Your task to perform on an android device: Go to wifi settings Image 0: 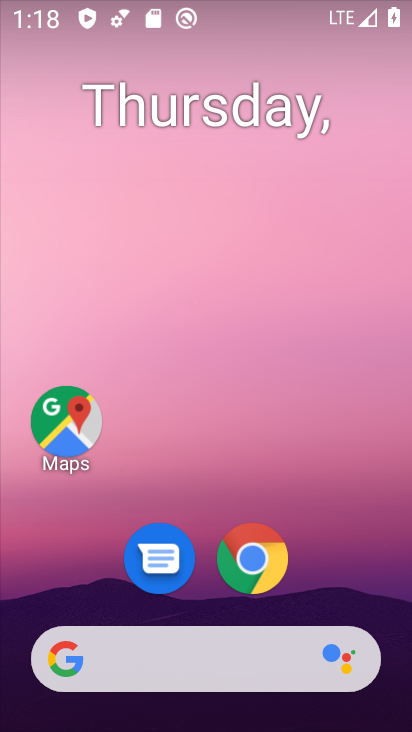
Step 0: drag from (340, 543) to (303, 0)
Your task to perform on an android device: Go to wifi settings Image 1: 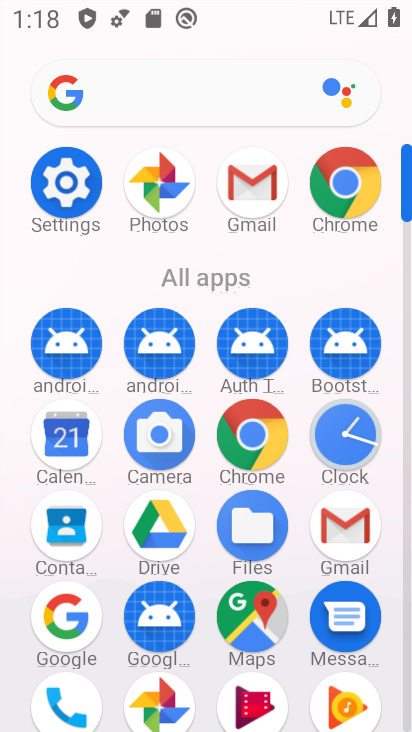
Step 1: drag from (316, 12) to (208, 524)
Your task to perform on an android device: Go to wifi settings Image 2: 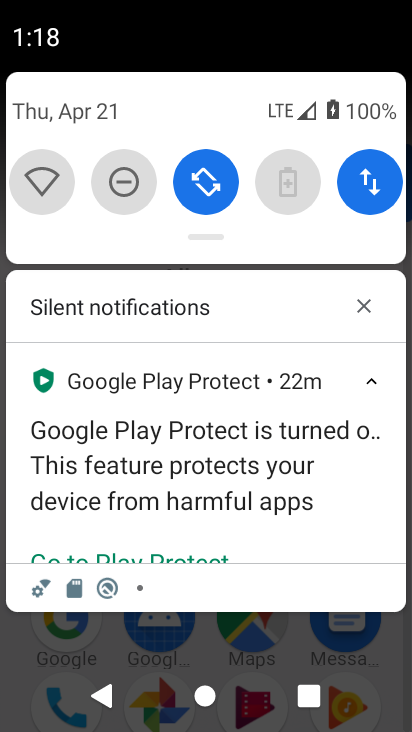
Step 2: drag from (195, 238) to (142, 601)
Your task to perform on an android device: Go to wifi settings Image 3: 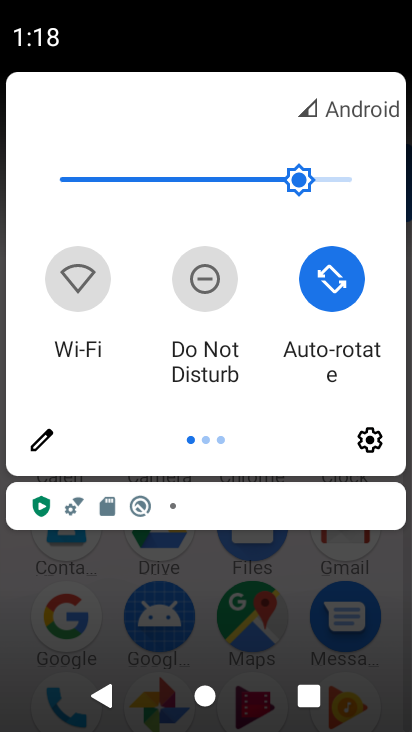
Step 3: click (80, 274)
Your task to perform on an android device: Go to wifi settings Image 4: 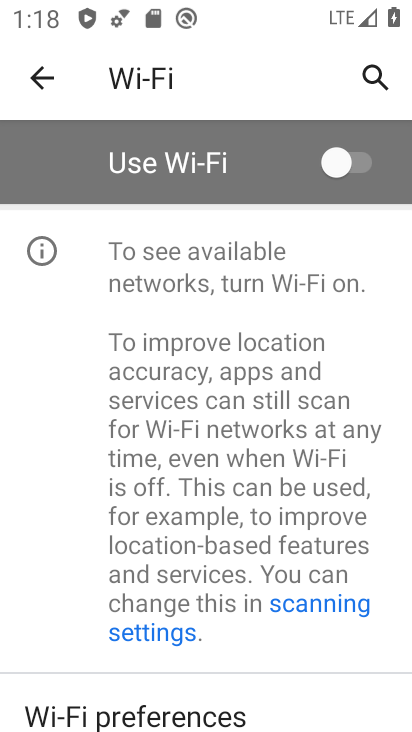
Step 4: task complete